Your task to perform on an android device: turn off sleep mode Image 0: 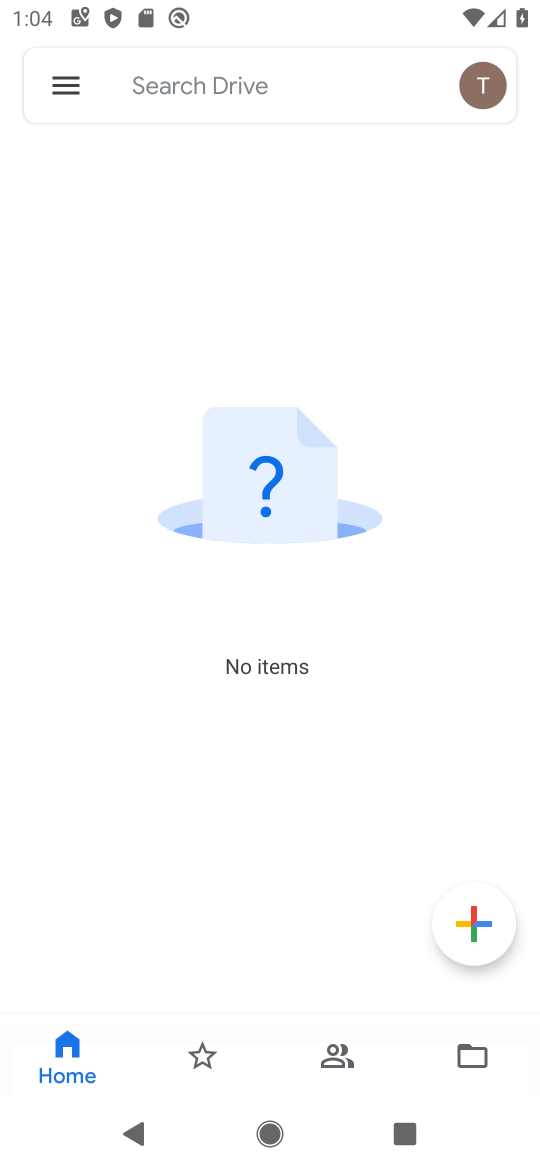
Step 0: press home button
Your task to perform on an android device: turn off sleep mode Image 1: 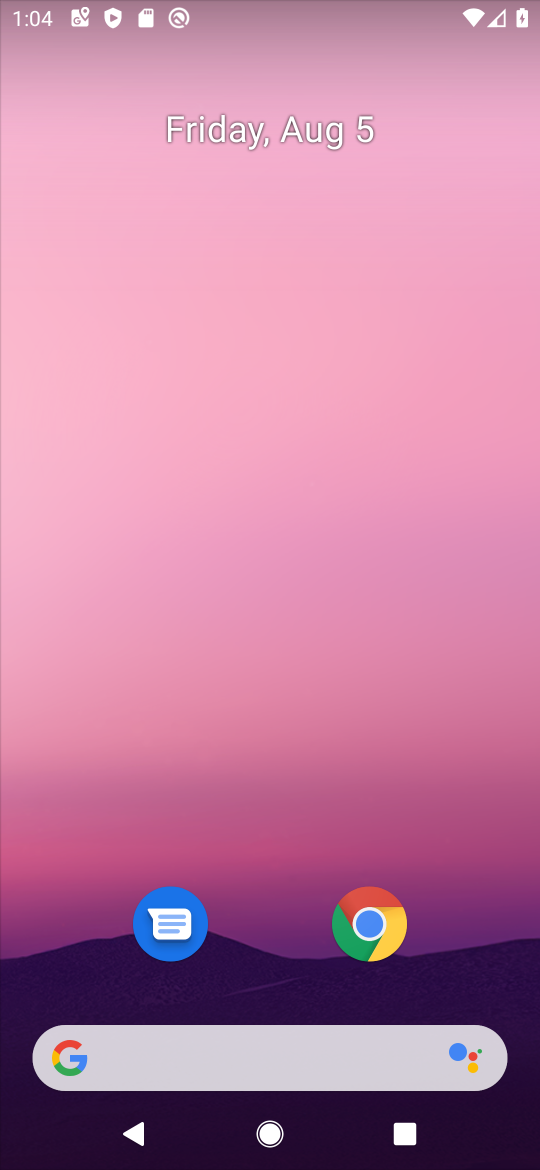
Step 1: drag from (203, 1043) to (314, 393)
Your task to perform on an android device: turn off sleep mode Image 2: 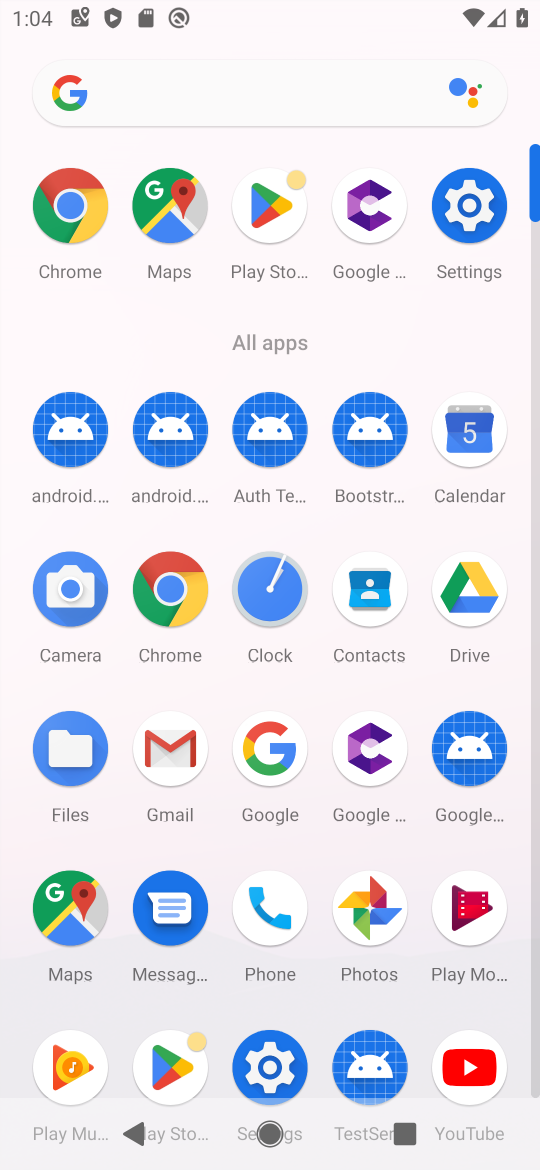
Step 2: click (465, 203)
Your task to perform on an android device: turn off sleep mode Image 3: 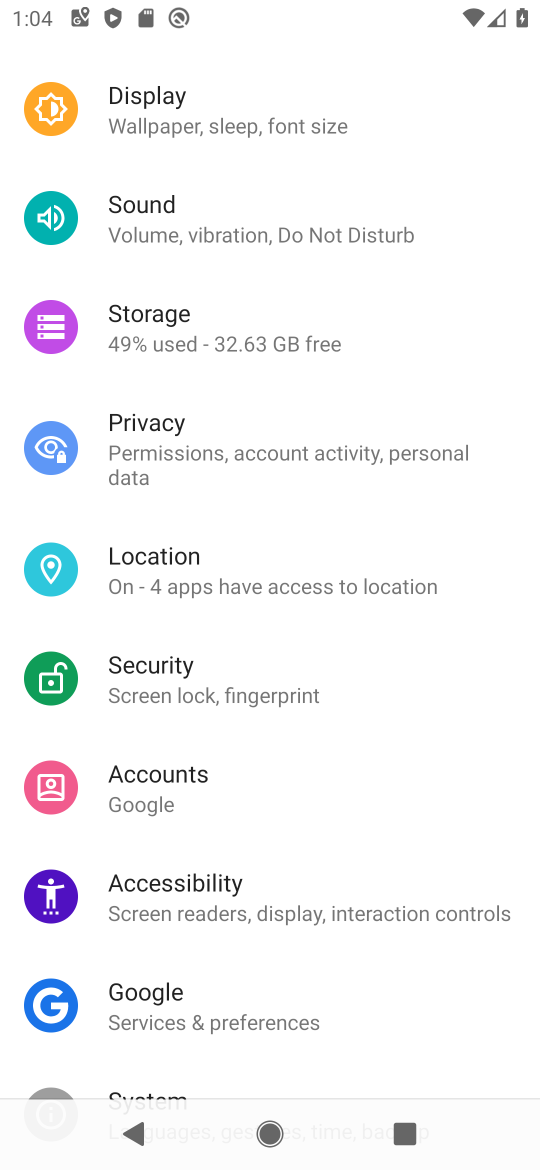
Step 3: click (286, 139)
Your task to perform on an android device: turn off sleep mode Image 4: 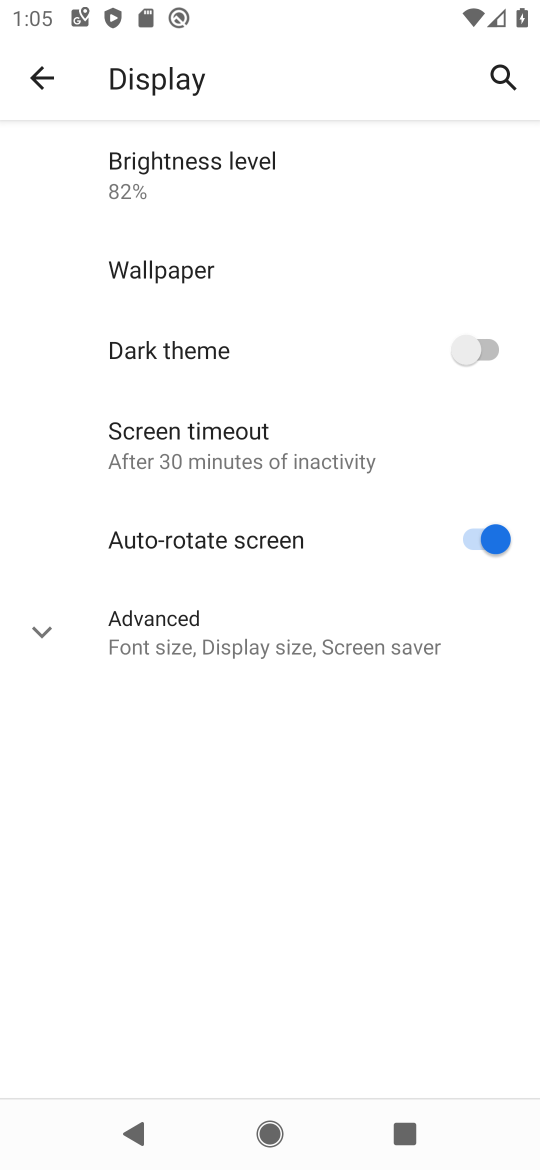
Step 4: click (194, 442)
Your task to perform on an android device: turn off sleep mode Image 5: 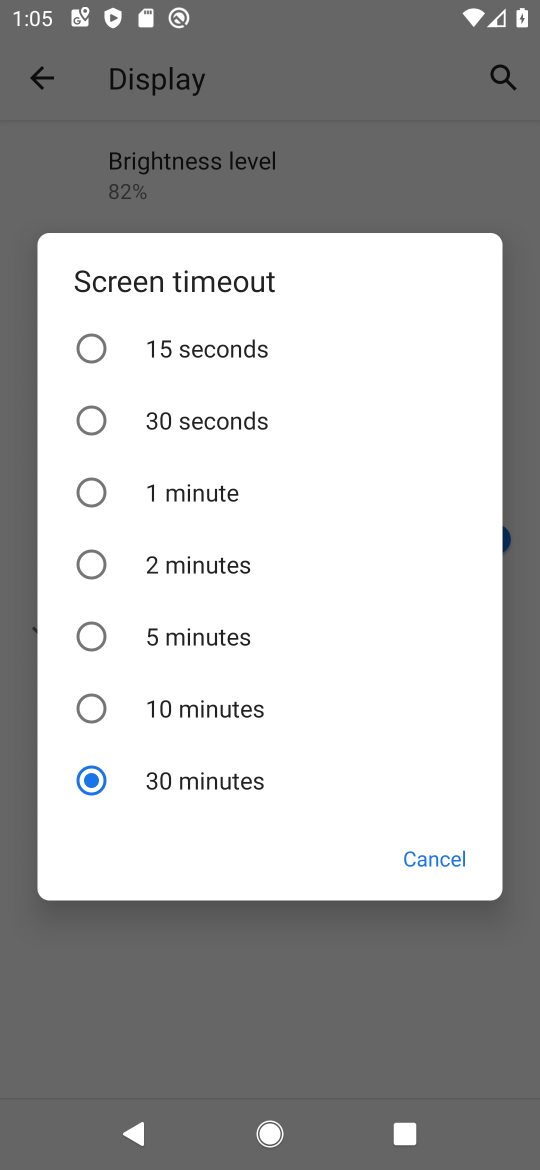
Step 5: click (439, 860)
Your task to perform on an android device: turn off sleep mode Image 6: 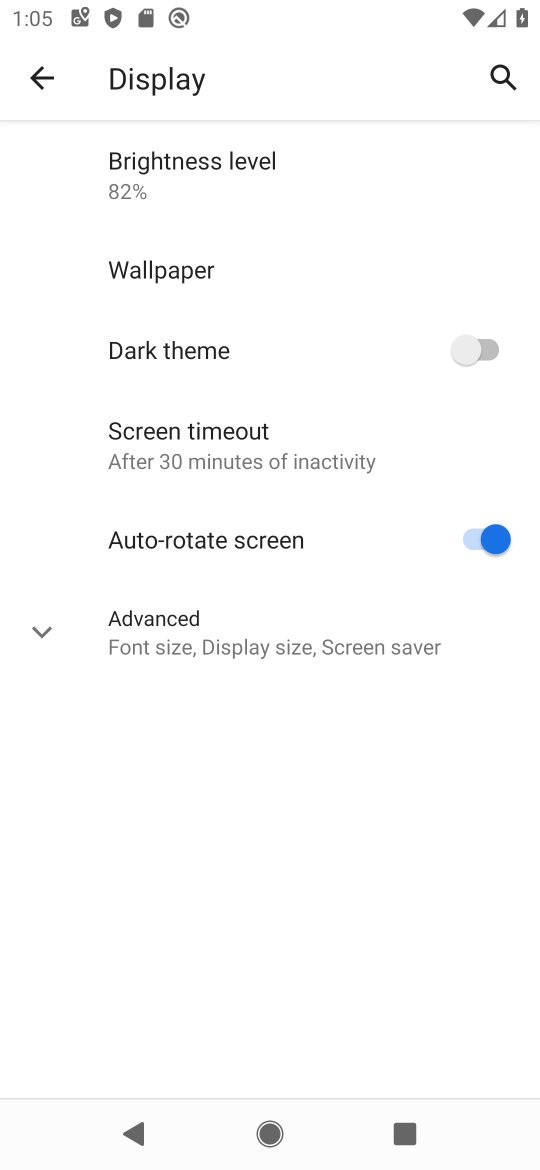
Step 6: task complete